Your task to perform on an android device: turn on translation in the chrome app Image 0: 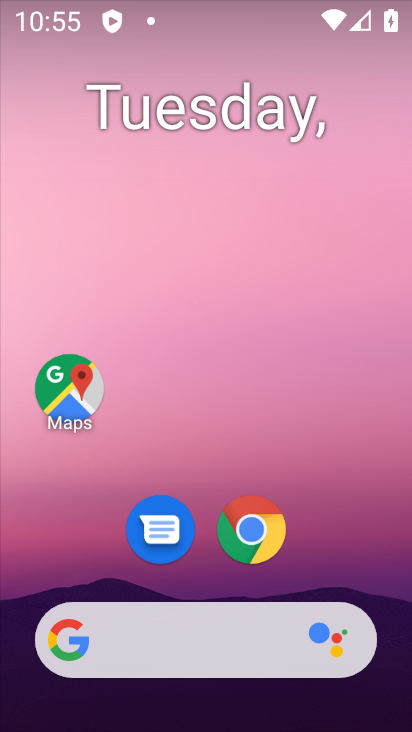
Step 0: click (239, 527)
Your task to perform on an android device: turn on translation in the chrome app Image 1: 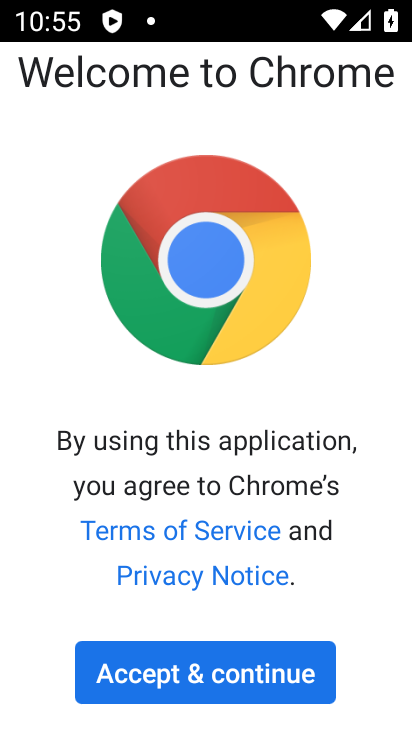
Step 1: click (242, 677)
Your task to perform on an android device: turn on translation in the chrome app Image 2: 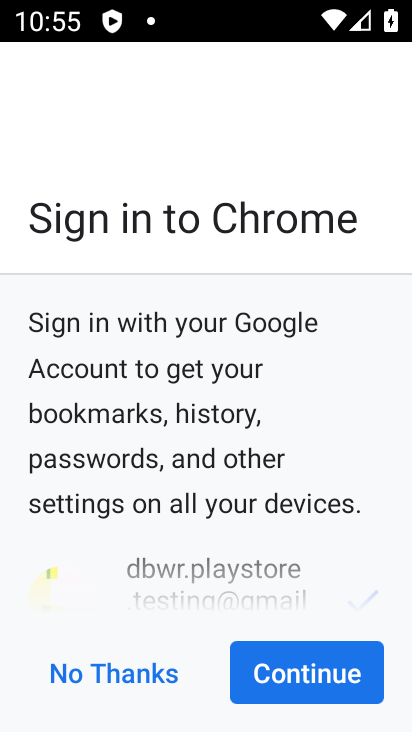
Step 2: click (324, 664)
Your task to perform on an android device: turn on translation in the chrome app Image 3: 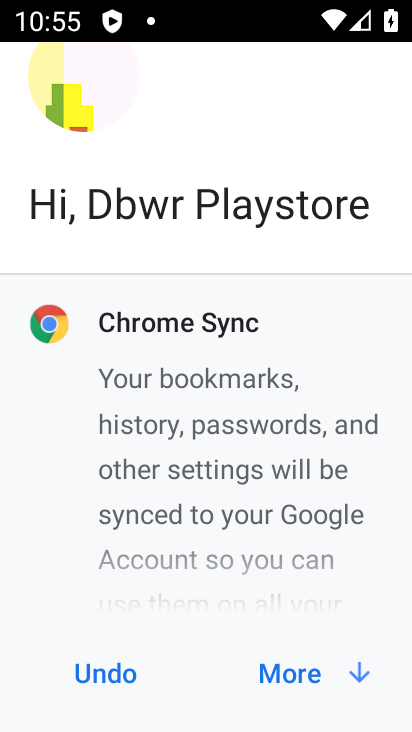
Step 3: click (325, 663)
Your task to perform on an android device: turn on translation in the chrome app Image 4: 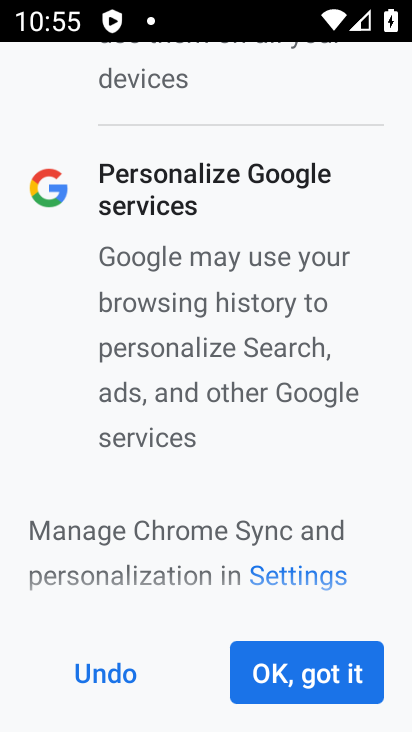
Step 4: click (303, 667)
Your task to perform on an android device: turn on translation in the chrome app Image 5: 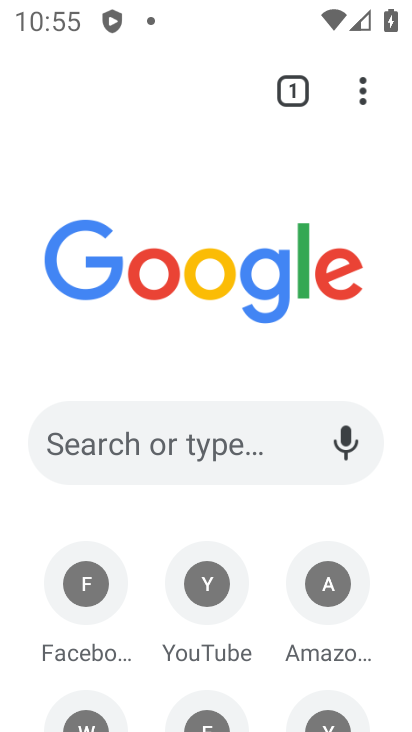
Step 5: click (367, 94)
Your task to perform on an android device: turn on translation in the chrome app Image 6: 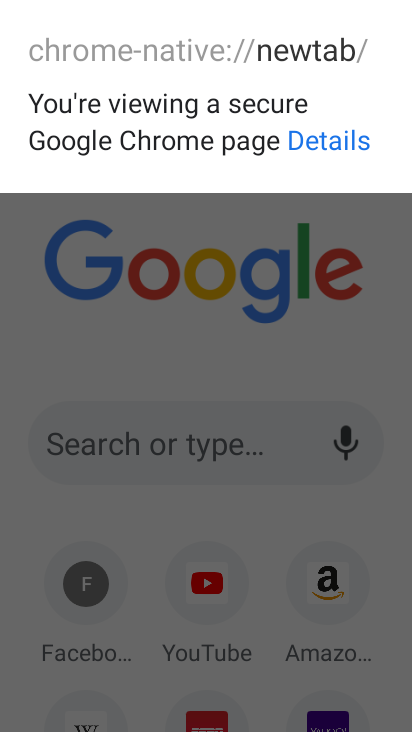
Step 6: click (360, 236)
Your task to perform on an android device: turn on translation in the chrome app Image 7: 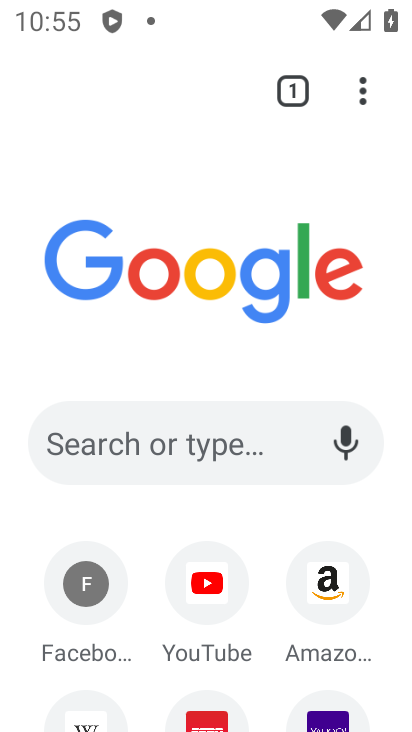
Step 7: click (383, 78)
Your task to perform on an android device: turn on translation in the chrome app Image 8: 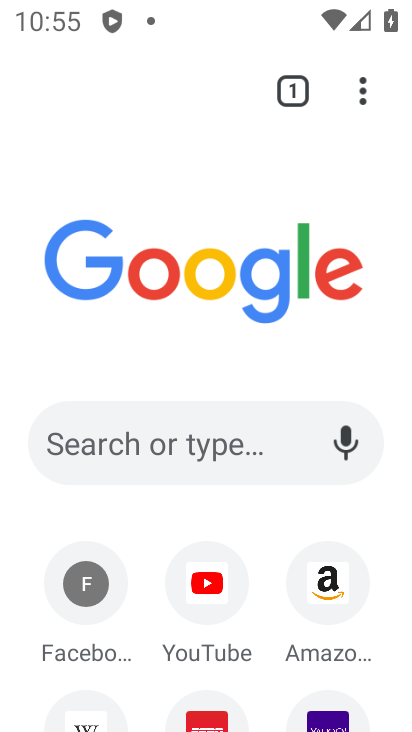
Step 8: click (363, 87)
Your task to perform on an android device: turn on translation in the chrome app Image 9: 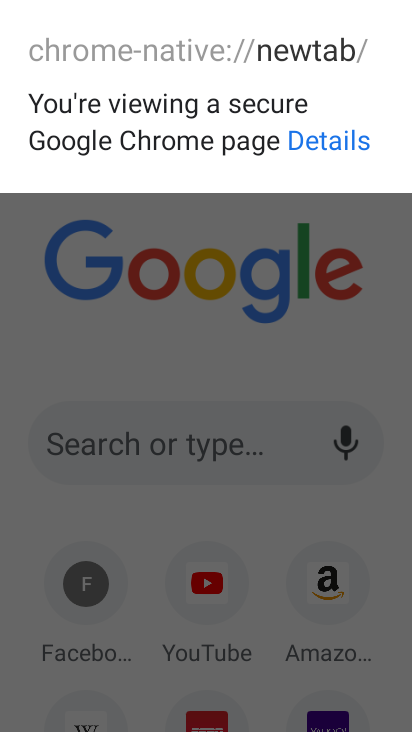
Step 9: click (338, 290)
Your task to perform on an android device: turn on translation in the chrome app Image 10: 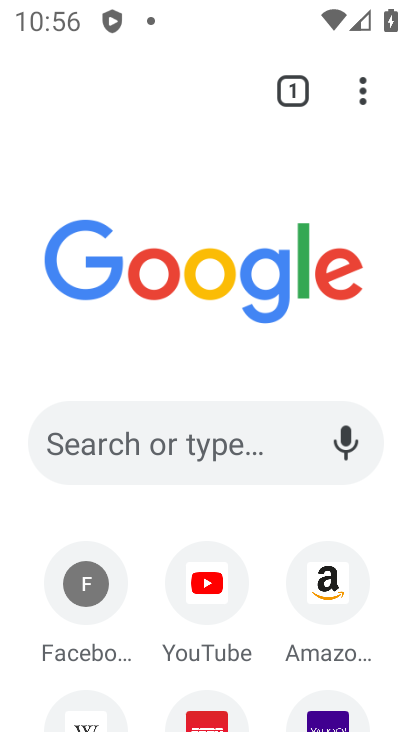
Step 10: click (364, 98)
Your task to perform on an android device: turn on translation in the chrome app Image 11: 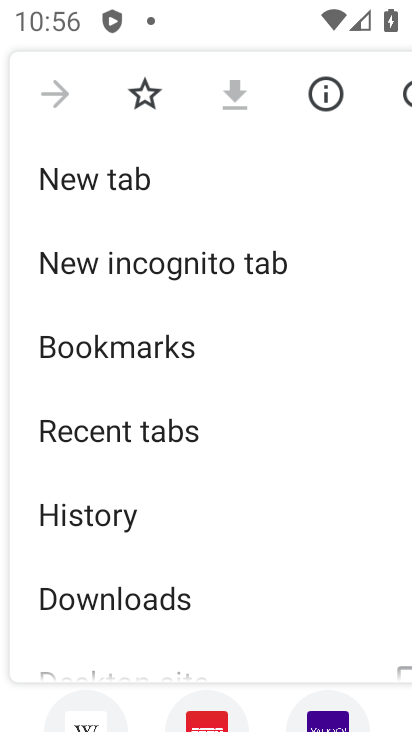
Step 11: drag from (112, 617) to (117, 247)
Your task to perform on an android device: turn on translation in the chrome app Image 12: 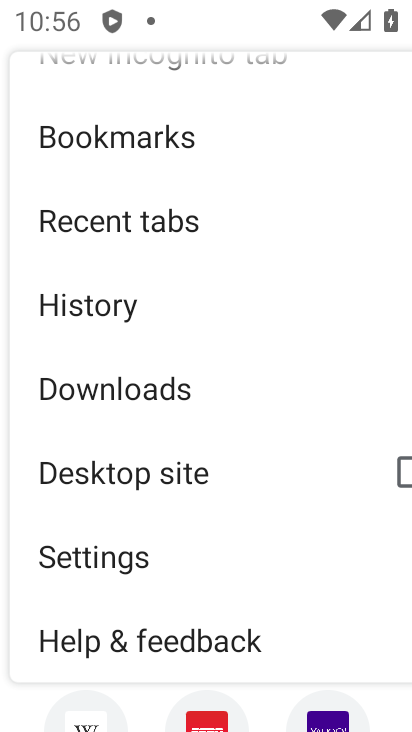
Step 12: click (107, 557)
Your task to perform on an android device: turn on translation in the chrome app Image 13: 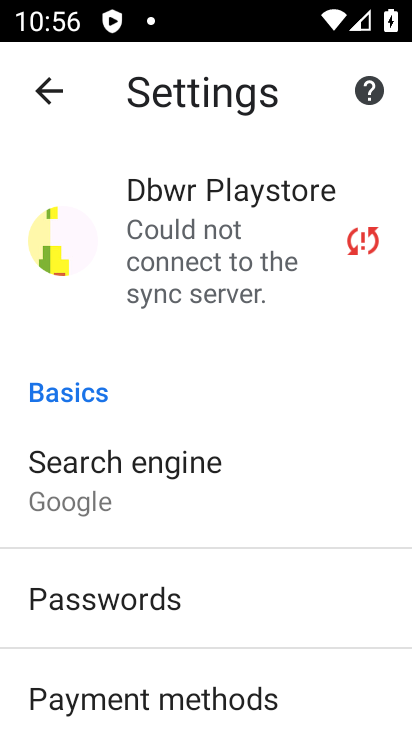
Step 13: drag from (286, 641) to (218, 221)
Your task to perform on an android device: turn on translation in the chrome app Image 14: 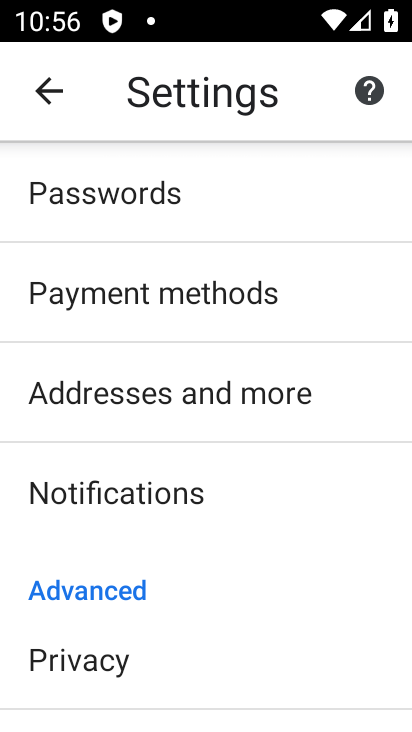
Step 14: drag from (114, 609) to (112, 225)
Your task to perform on an android device: turn on translation in the chrome app Image 15: 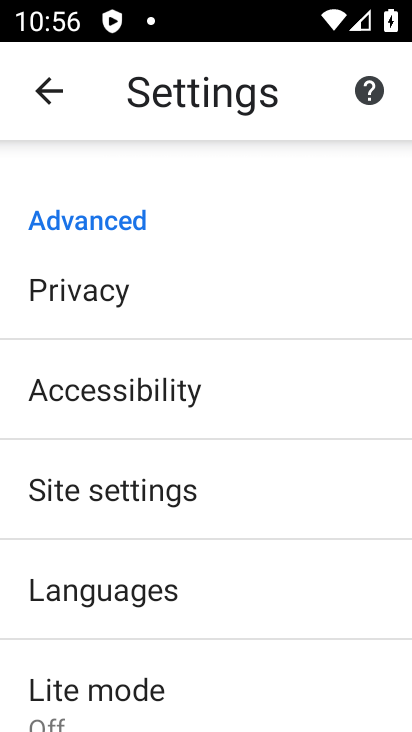
Step 15: click (133, 576)
Your task to perform on an android device: turn on translation in the chrome app Image 16: 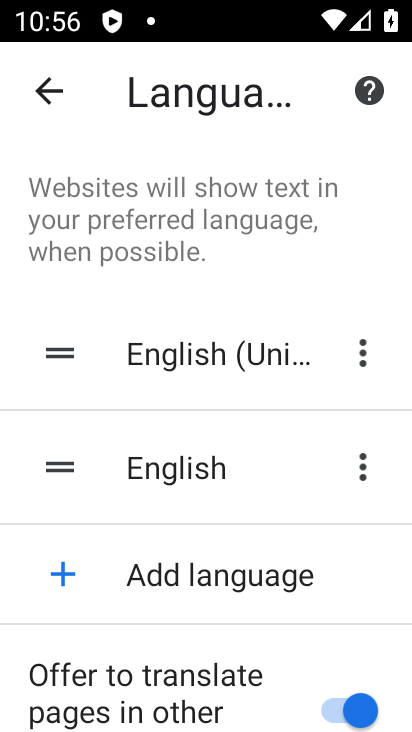
Step 16: task complete